Your task to perform on an android device: Open wifi settings Image 0: 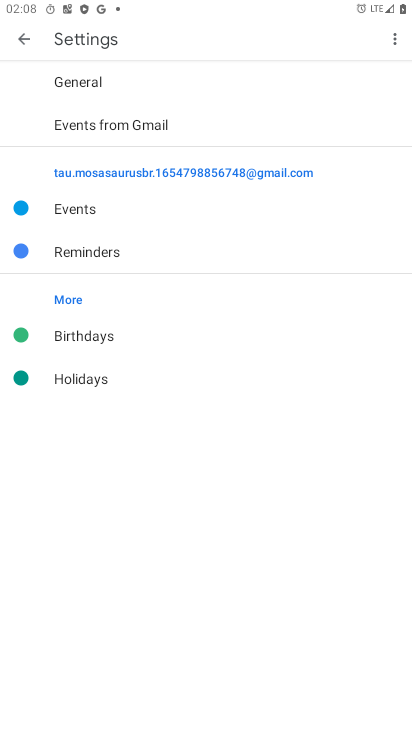
Step 0: press home button
Your task to perform on an android device: Open wifi settings Image 1: 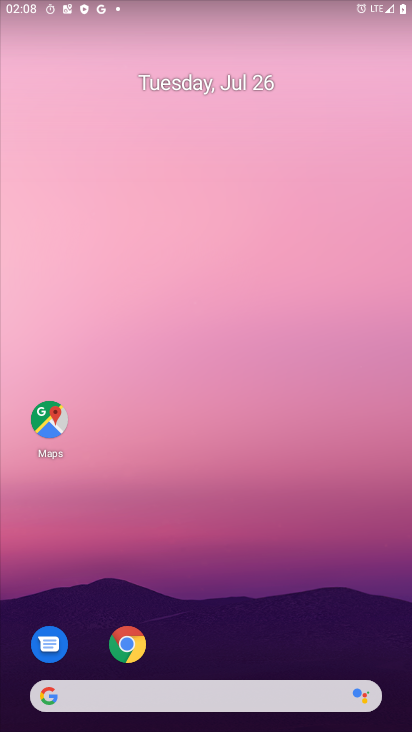
Step 1: drag from (227, 619) to (213, 32)
Your task to perform on an android device: Open wifi settings Image 2: 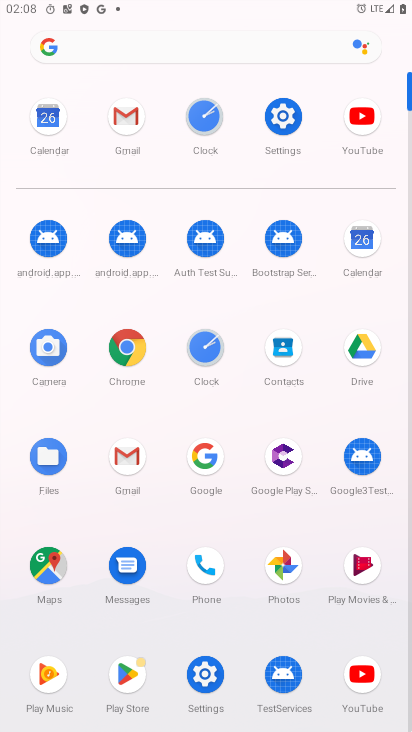
Step 2: click (281, 119)
Your task to perform on an android device: Open wifi settings Image 3: 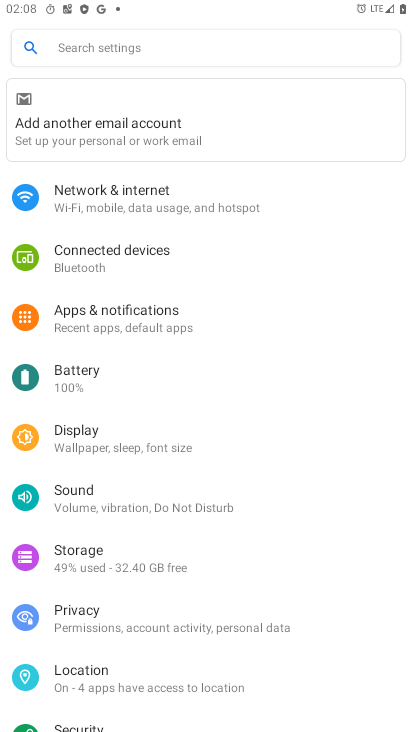
Step 3: click (88, 205)
Your task to perform on an android device: Open wifi settings Image 4: 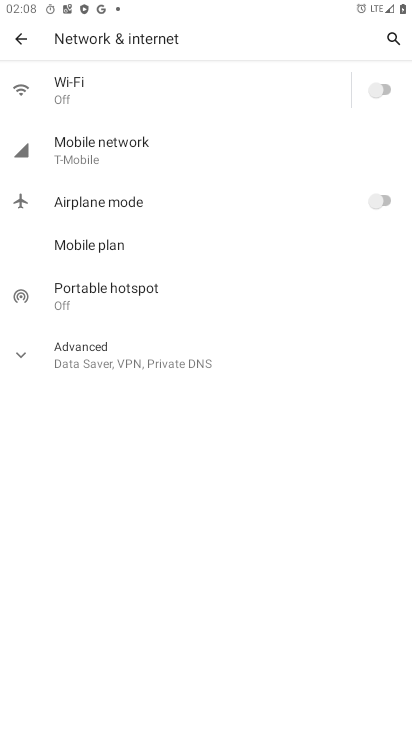
Step 4: click (29, 90)
Your task to perform on an android device: Open wifi settings Image 5: 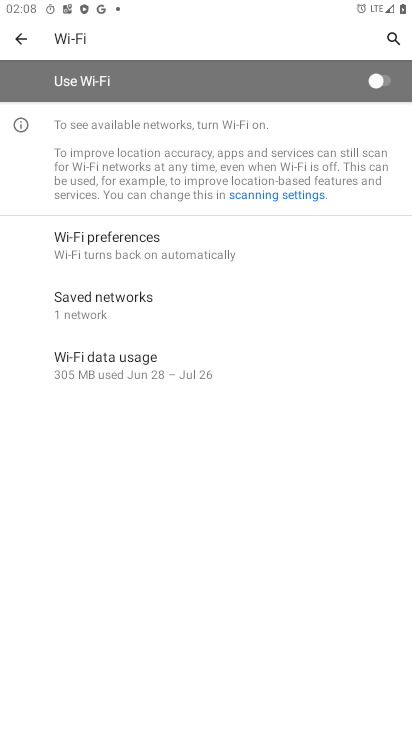
Step 5: task complete